Your task to perform on an android device: Open privacy settings Image 0: 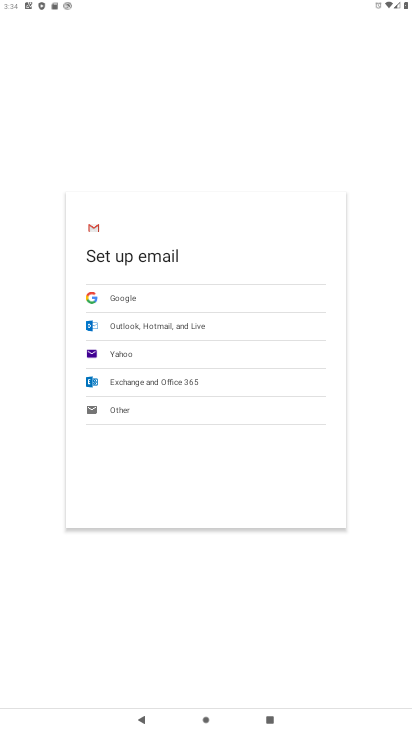
Step 0: press home button
Your task to perform on an android device: Open privacy settings Image 1: 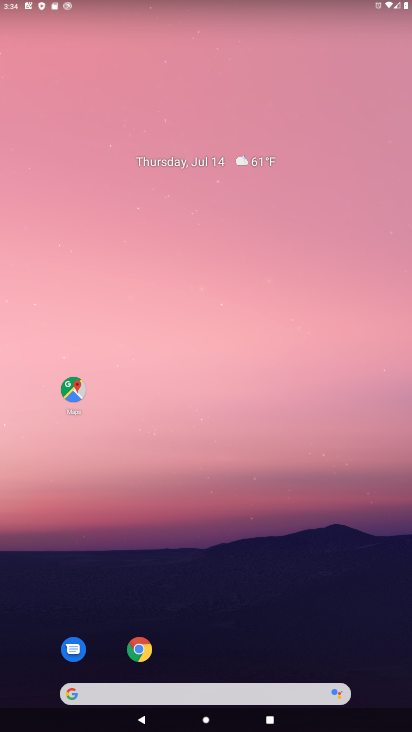
Step 1: drag from (194, 651) to (130, 148)
Your task to perform on an android device: Open privacy settings Image 2: 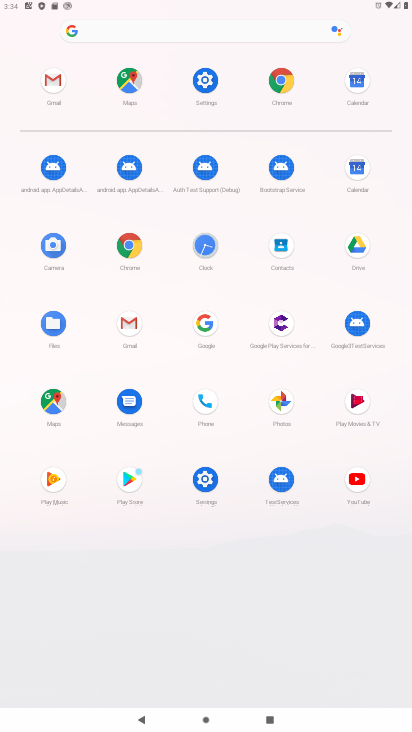
Step 2: click (206, 96)
Your task to perform on an android device: Open privacy settings Image 3: 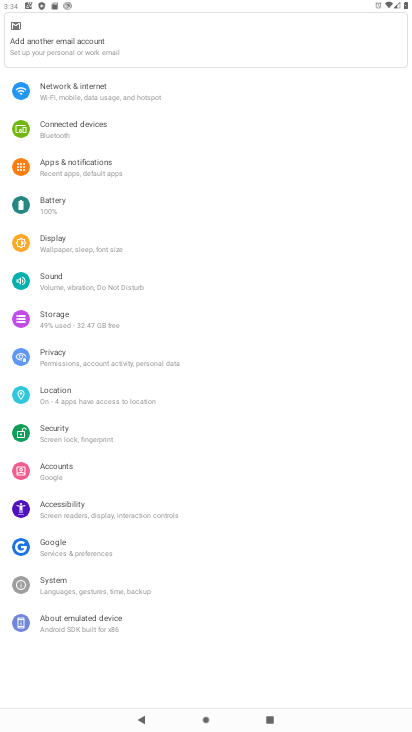
Step 3: click (55, 351)
Your task to perform on an android device: Open privacy settings Image 4: 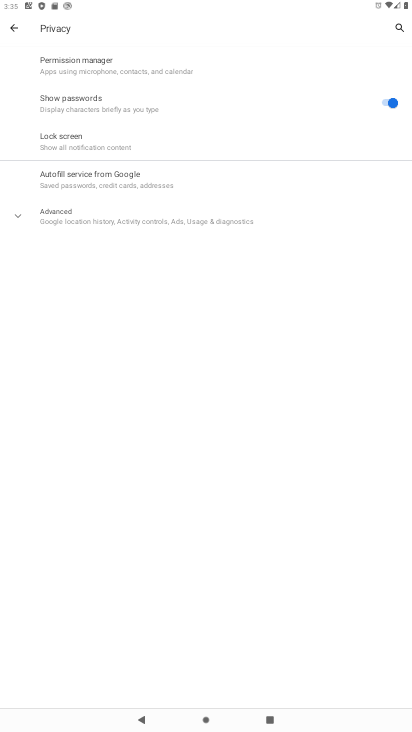
Step 4: task complete